Your task to perform on an android device: Open Wikipedia Image 0: 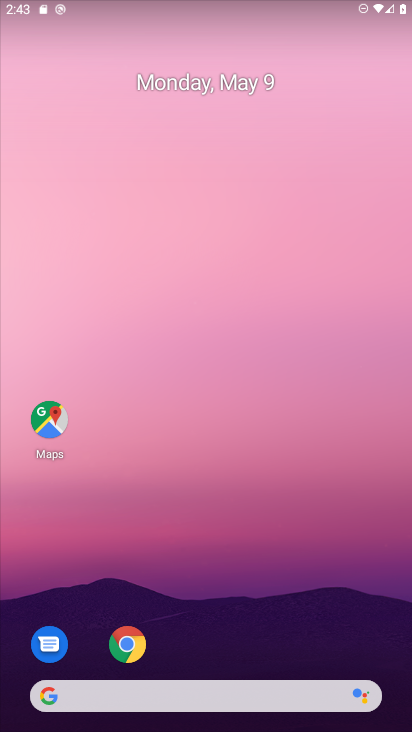
Step 0: drag from (240, 630) to (207, 162)
Your task to perform on an android device: Open Wikipedia Image 1: 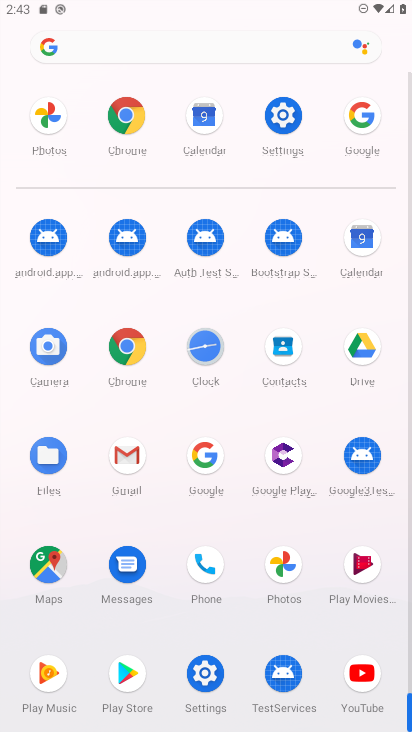
Step 1: click (116, 150)
Your task to perform on an android device: Open Wikipedia Image 2: 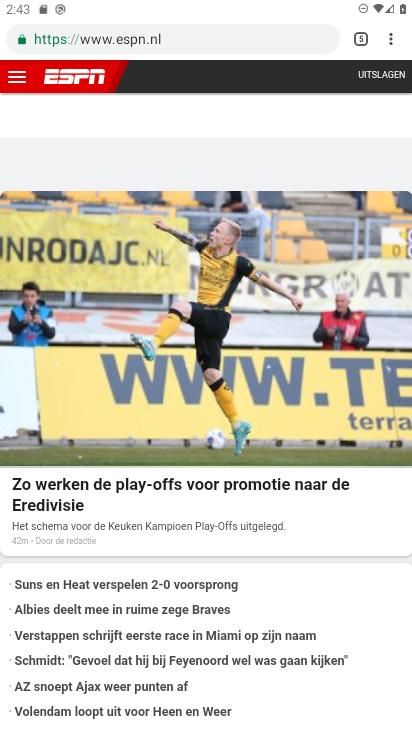
Step 2: click (356, 46)
Your task to perform on an android device: Open Wikipedia Image 3: 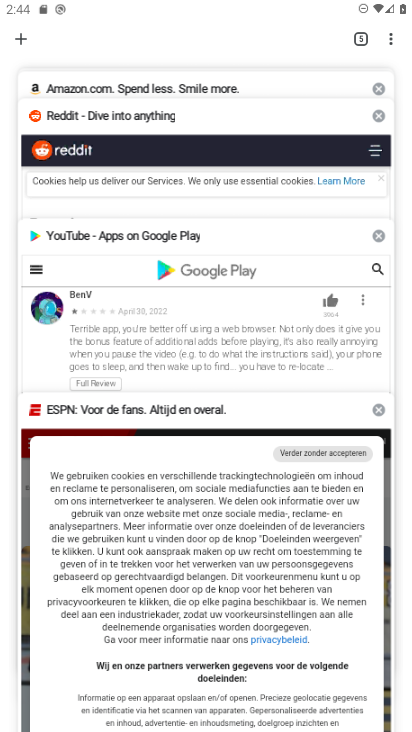
Step 3: click (23, 39)
Your task to perform on an android device: Open Wikipedia Image 4: 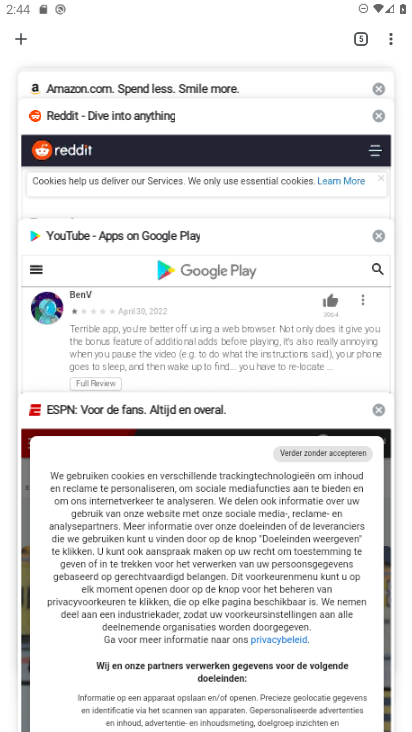
Step 4: click (17, 37)
Your task to perform on an android device: Open Wikipedia Image 5: 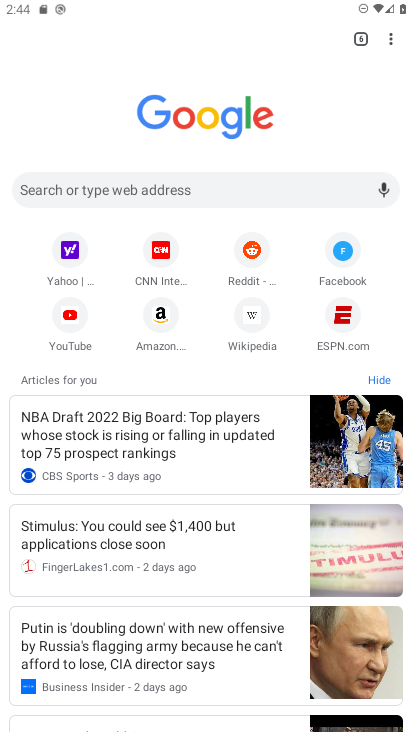
Step 5: click (251, 331)
Your task to perform on an android device: Open Wikipedia Image 6: 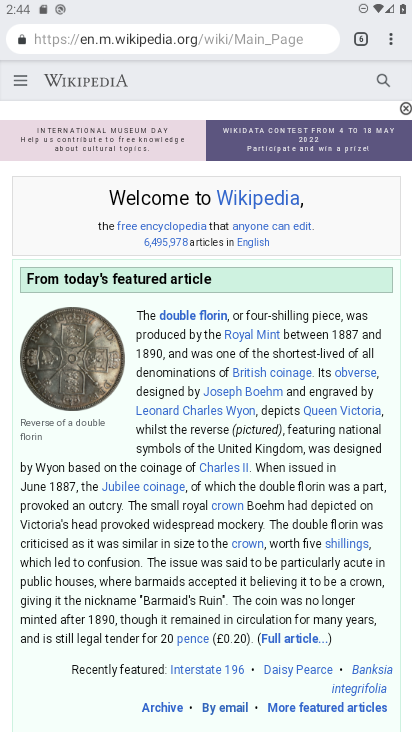
Step 6: task complete